Your task to perform on an android device: turn on location history Image 0: 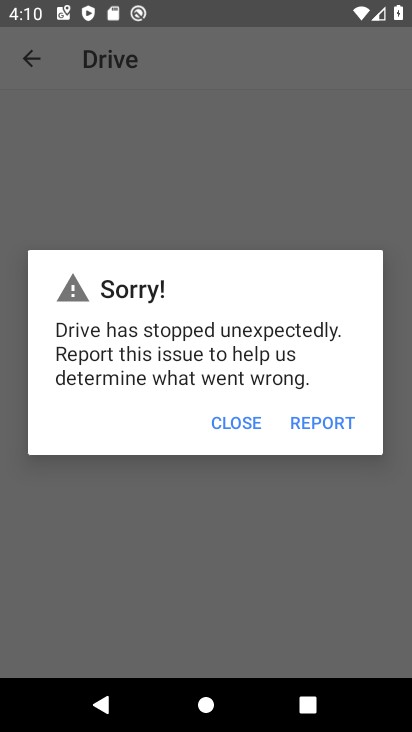
Step 0: press home button
Your task to perform on an android device: turn on location history Image 1: 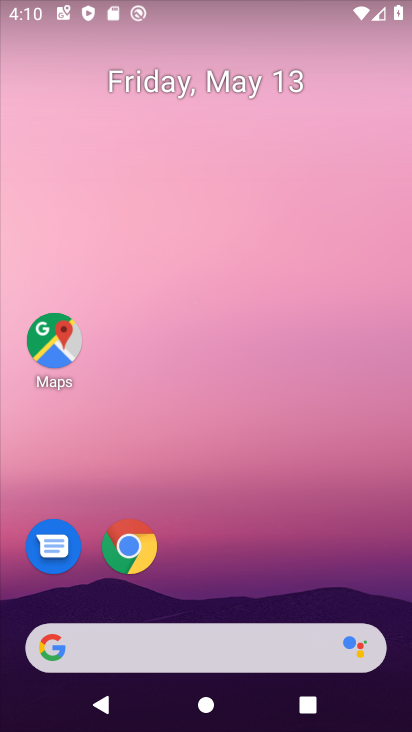
Step 1: drag from (233, 557) to (285, 0)
Your task to perform on an android device: turn on location history Image 2: 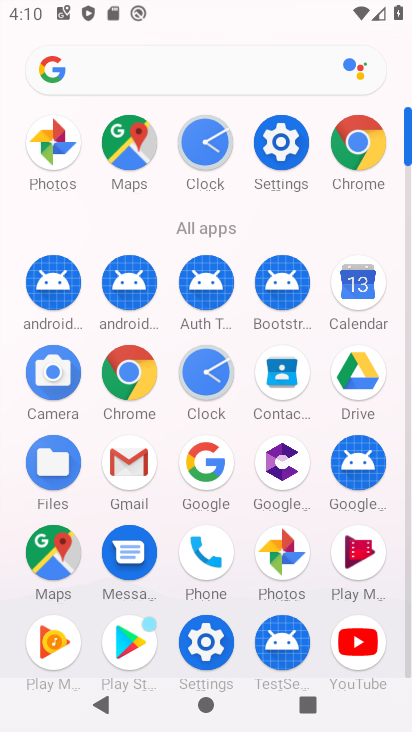
Step 2: click (200, 634)
Your task to perform on an android device: turn on location history Image 3: 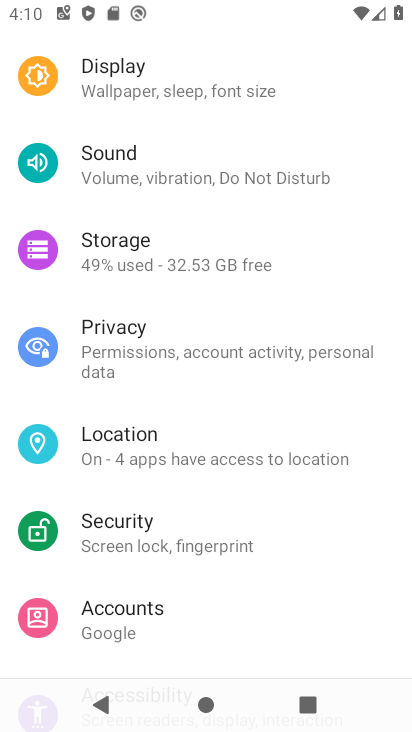
Step 3: click (273, 152)
Your task to perform on an android device: turn on location history Image 4: 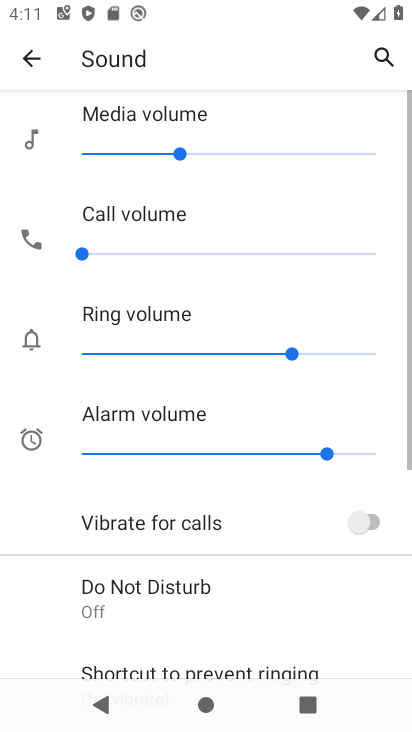
Step 4: drag from (182, 515) to (212, 177)
Your task to perform on an android device: turn on location history Image 5: 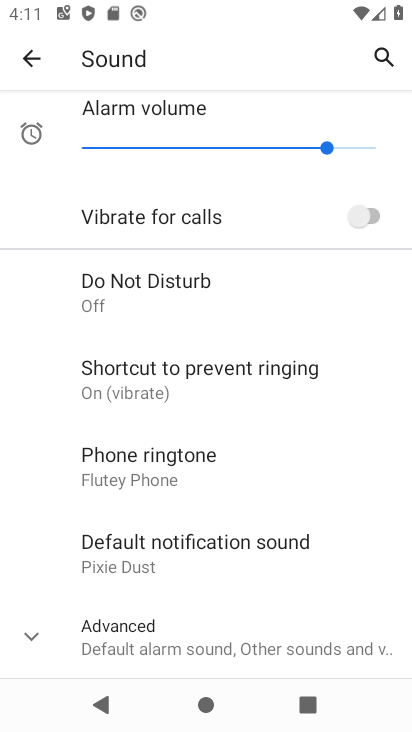
Step 5: click (30, 51)
Your task to perform on an android device: turn on location history Image 6: 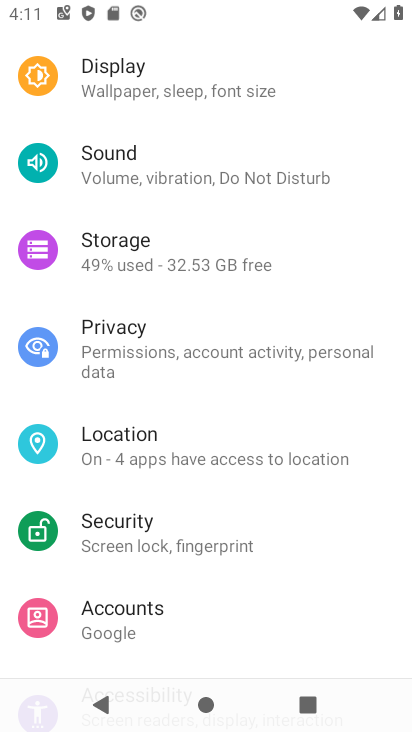
Step 6: click (180, 454)
Your task to perform on an android device: turn on location history Image 7: 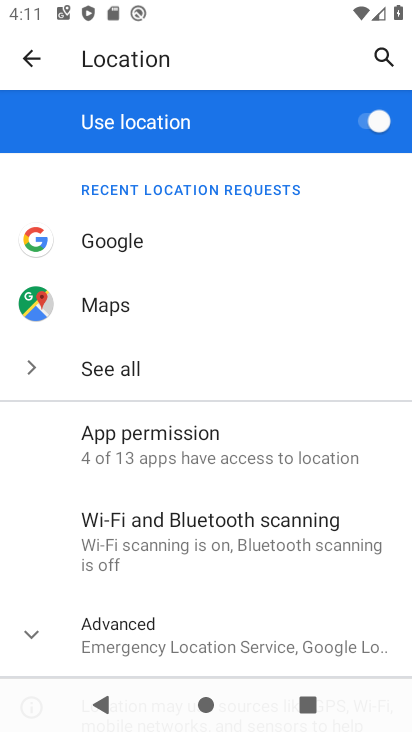
Step 7: drag from (196, 576) to (234, 335)
Your task to perform on an android device: turn on location history Image 8: 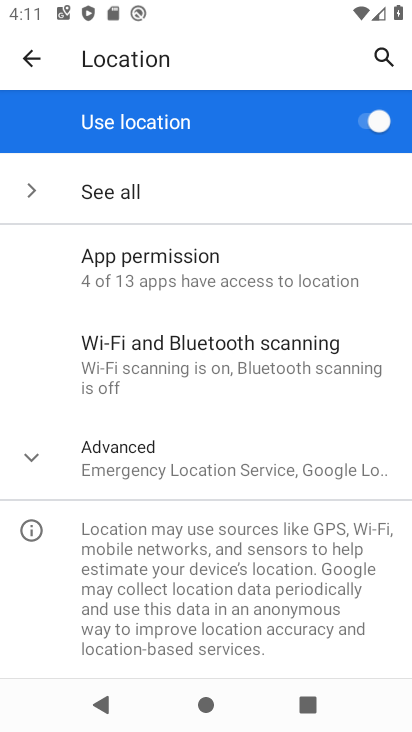
Step 8: click (123, 442)
Your task to perform on an android device: turn on location history Image 9: 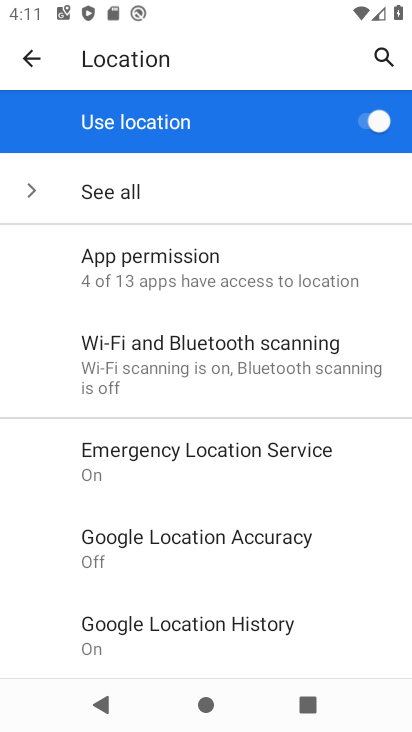
Step 9: click (198, 626)
Your task to perform on an android device: turn on location history Image 10: 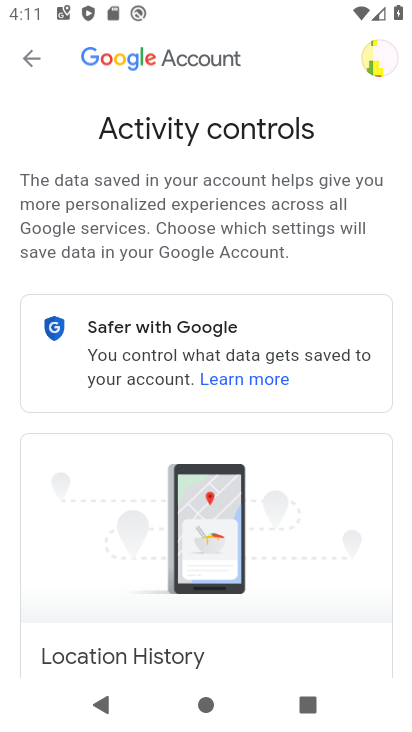
Step 10: task complete